Your task to perform on an android device: Go to Google maps Image 0: 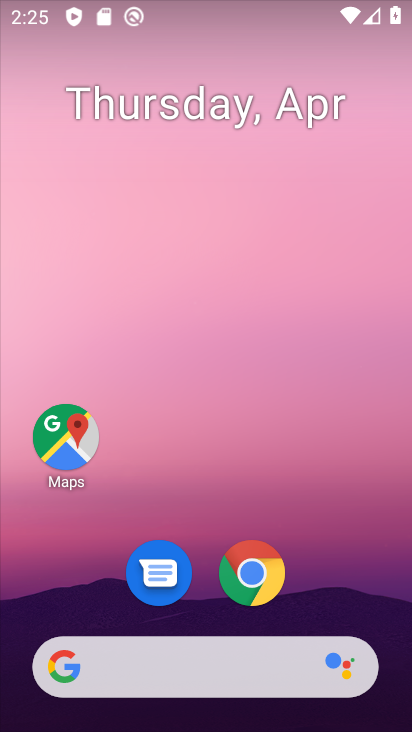
Step 0: drag from (358, 595) to (204, 14)
Your task to perform on an android device: Go to Google maps Image 1: 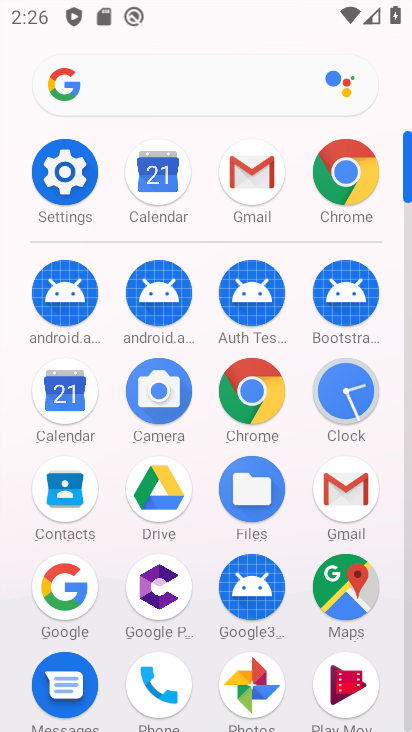
Step 1: click (354, 603)
Your task to perform on an android device: Go to Google maps Image 2: 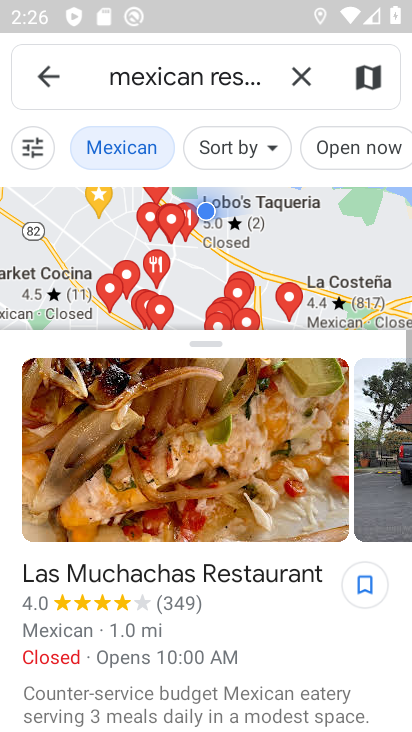
Step 2: click (298, 70)
Your task to perform on an android device: Go to Google maps Image 3: 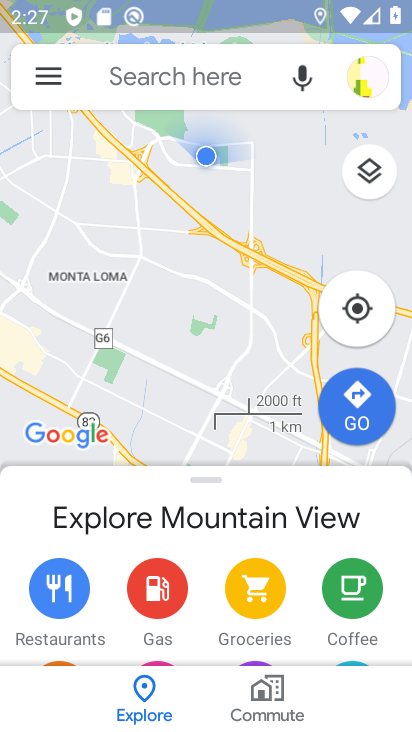
Step 3: task complete